Your task to perform on an android device: Go to battery settings Image 0: 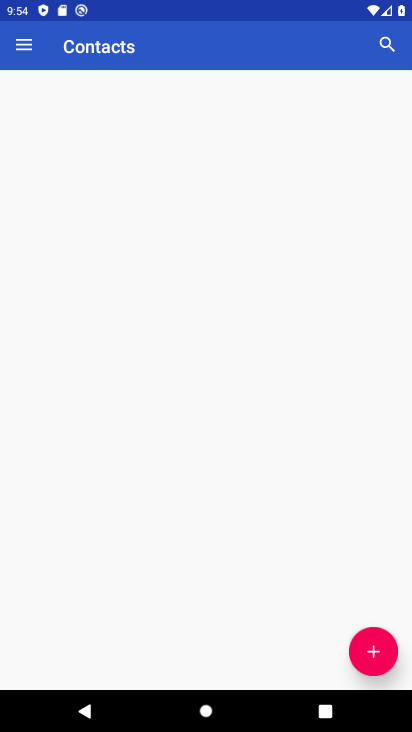
Step 0: press home button
Your task to perform on an android device: Go to battery settings Image 1: 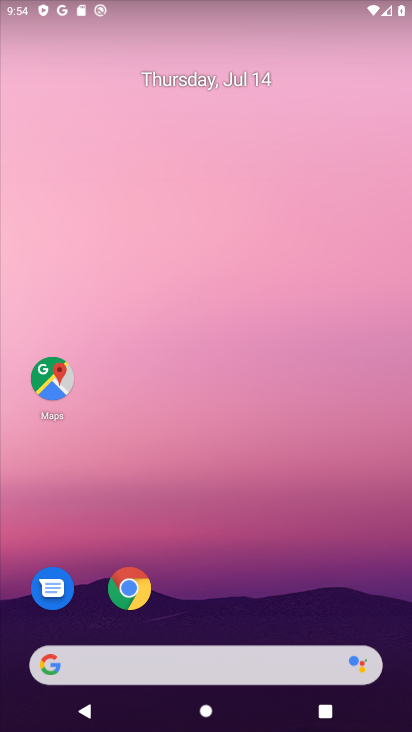
Step 1: drag from (250, 620) to (256, 100)
Your task to perform on an android device: Go to battery settings Image 2: 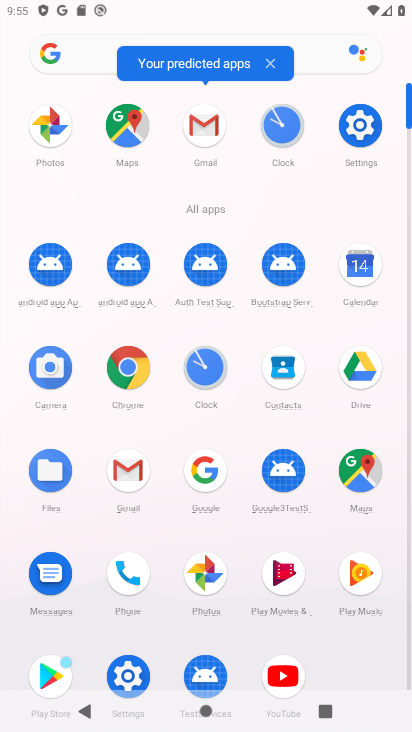
Step 2: click (366, 165)
Your task to perform on an android device: Go to battery settings Image 3: 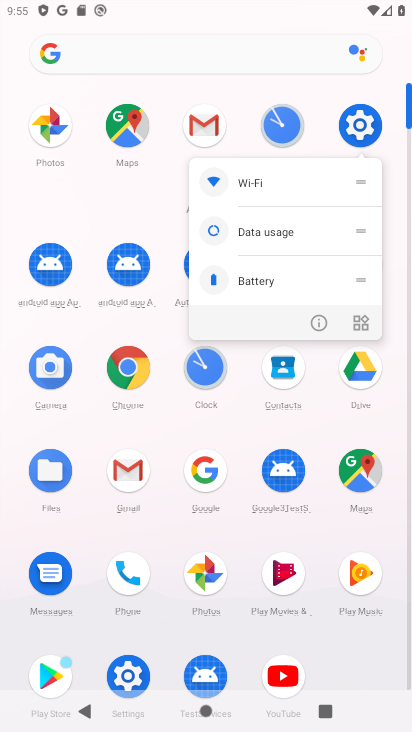
Step 3: click (363, 126)
Your task to perform on an android device: Go to battery settings Image 4: 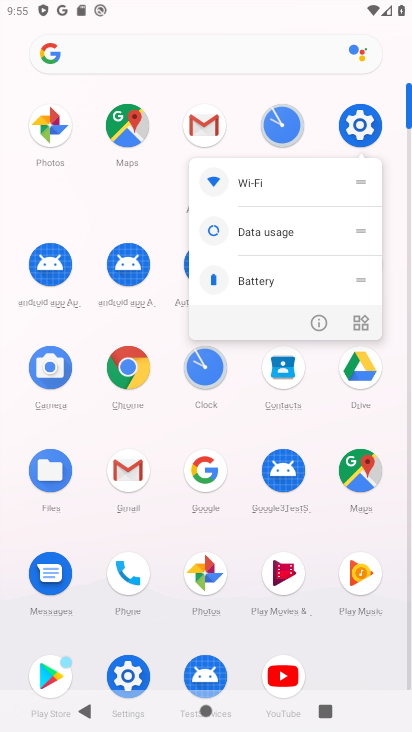
Step 4: click (363, 126)
Your task to perform on an android device: Go to battery settings Image 5: 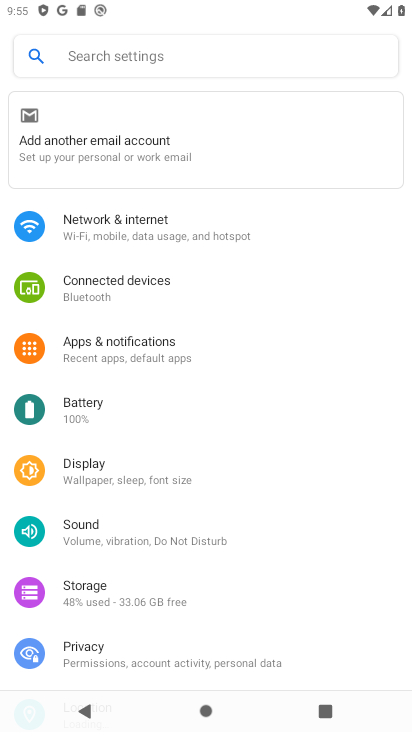
Step 5: click (119, 412)
Your task to perform on an android device: Go to battery settings Image 6: 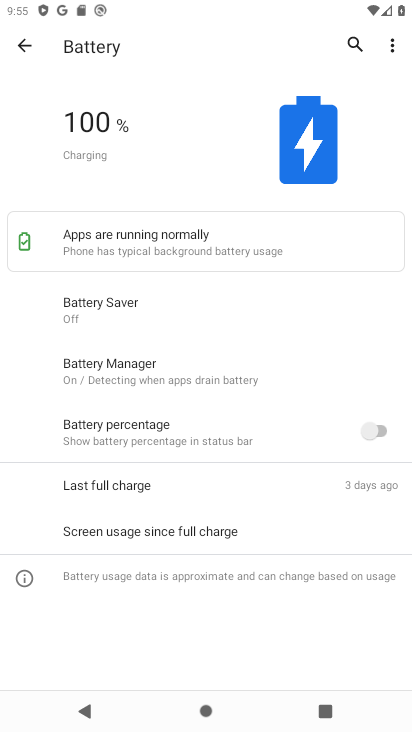
Step 6: task complete